Your task to perform on an android device: Open settings on Google Maps Image 0: 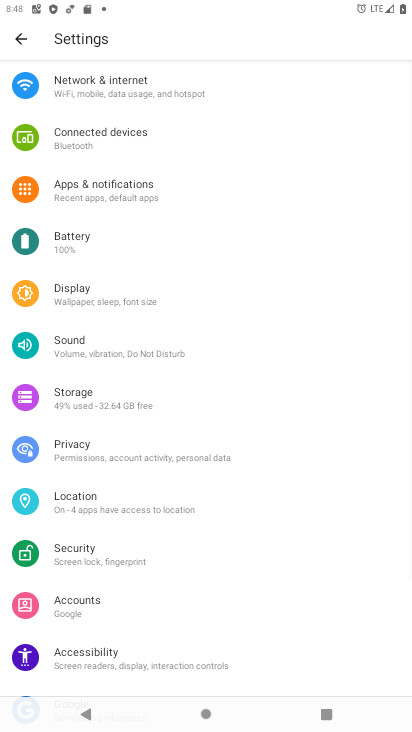
Step 0: press home button
Your task to perform on an android device: Open settings on Google Maps Image 1: 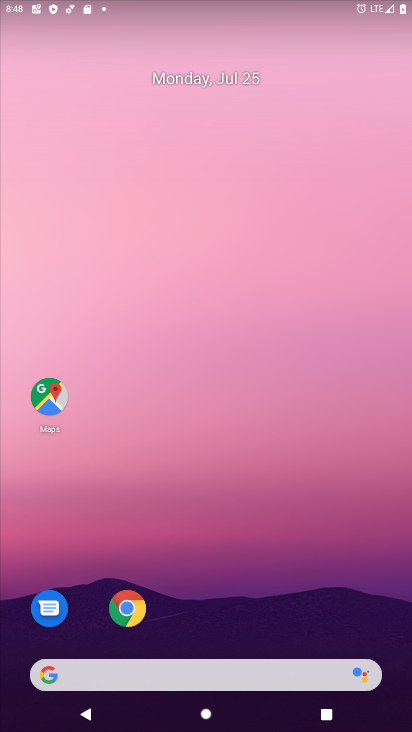
Step 1: drag from (227, 726) to (193, 244)
Your task to perform on an android device: Open settings on Google Maps Image 2: 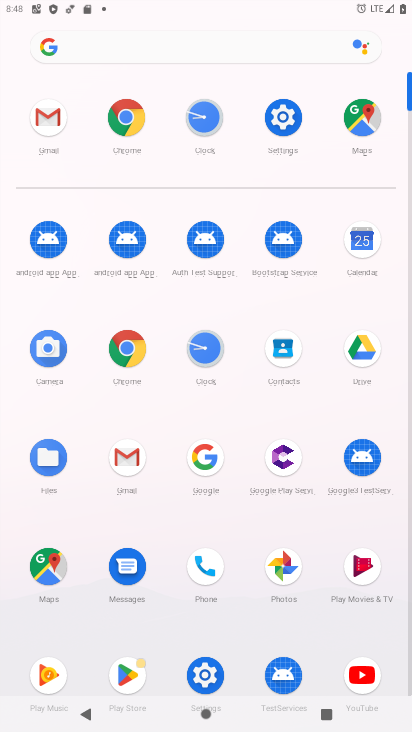
Step 2: click (43, 563)
Your task to perform on an android device: Open settings on Google Maps Image 3: 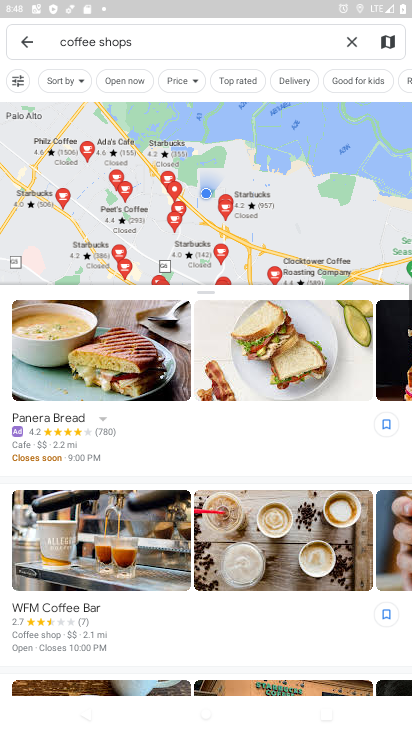
Step 3: click (20, 38)
Your task to perform on an android device: Open settings on Google Maps Image 4: 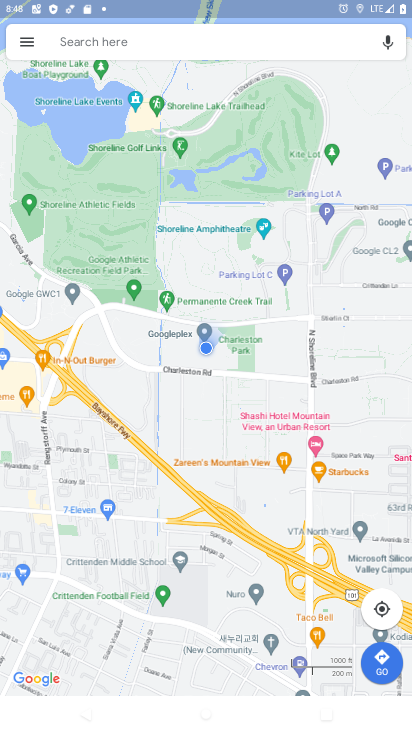
Step 4: click (20, 38)
Your task to perform on an android device: Open settings on Google Maps Image 5: 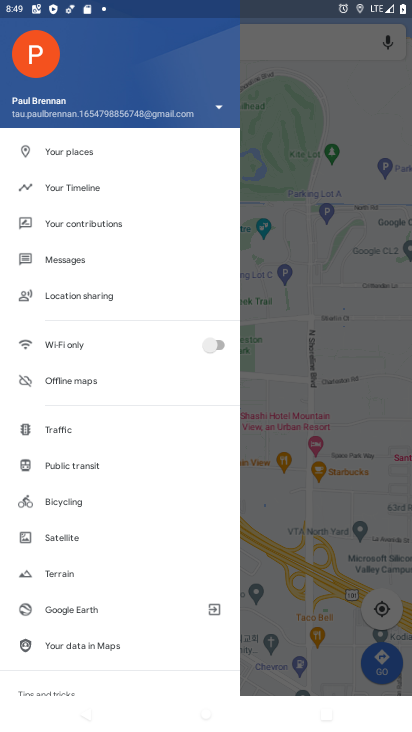
Step 5: drag from (113, 662) to (108, 386)
Your task to perform on an android device: Open settings on Google Maps Image 6: 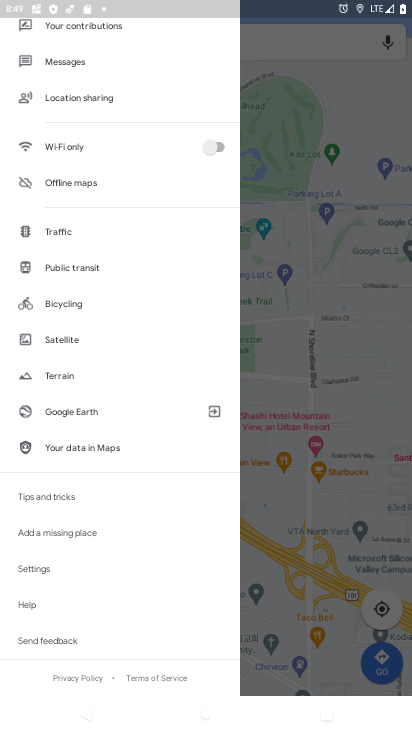
Step 6: click (25, 567)
Your task to perform on an android device: Open settings on Google Maps Image 7: 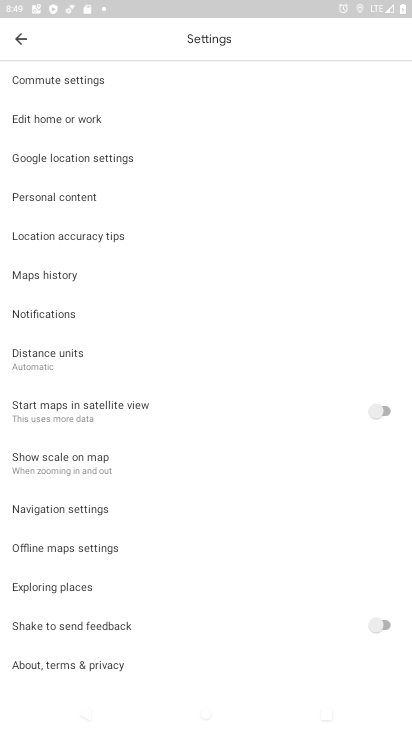
Step 7: task complete